Your task to perform on an android device: Go to privacy settings Image 0: 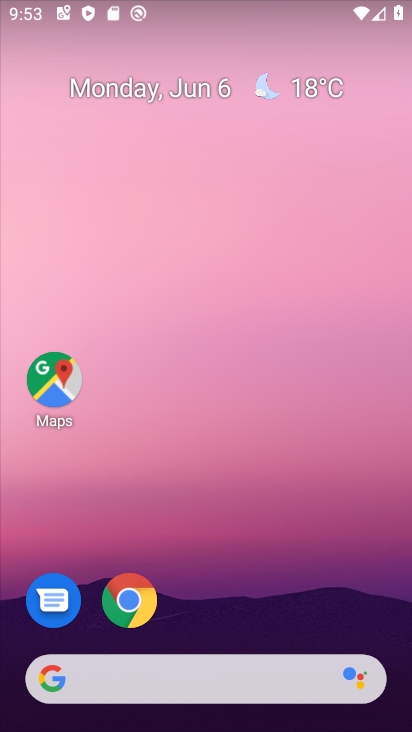
Step 0: drag from (263, 600) to (260, 22)
Your task to perform on an android device: Go to privacy settings Image 1: 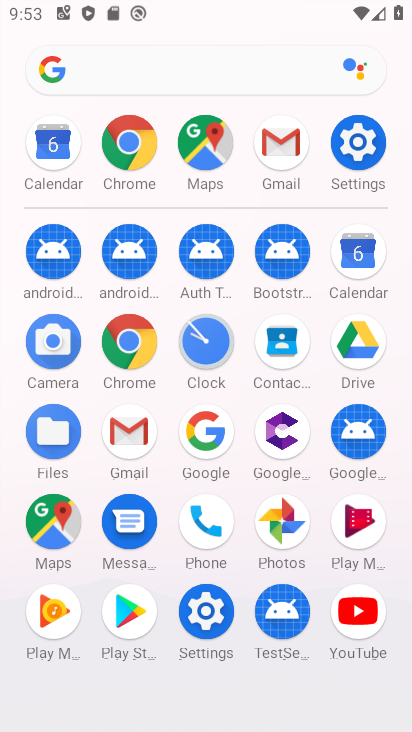
Step 1: click (208, 608)
Your task to perform on an android device: Go to privacy settings Image 2: 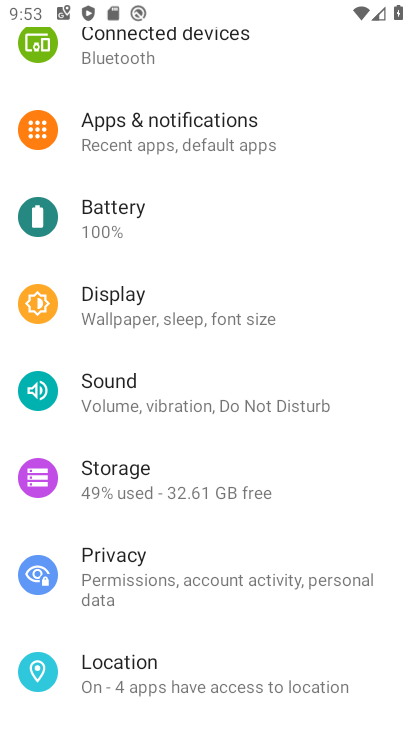
Step 2: drag from (266, 665) to (269, 211)
Your task to perform on an android device: Go to privacy settings Image 3: 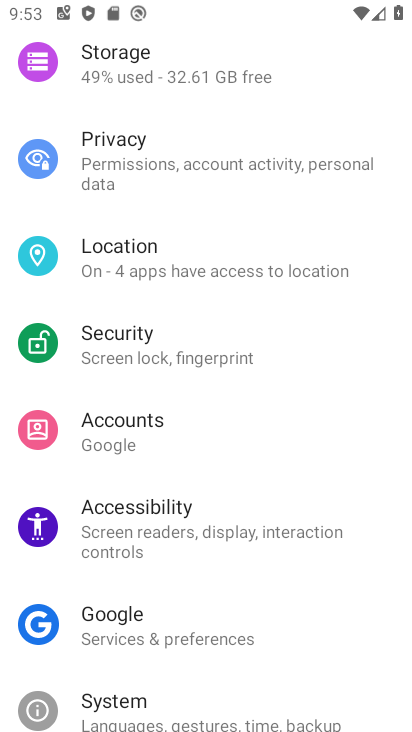
Step 3: click (190, 163)
Your task to perform on an android device: Go to privacy settings Image 4: 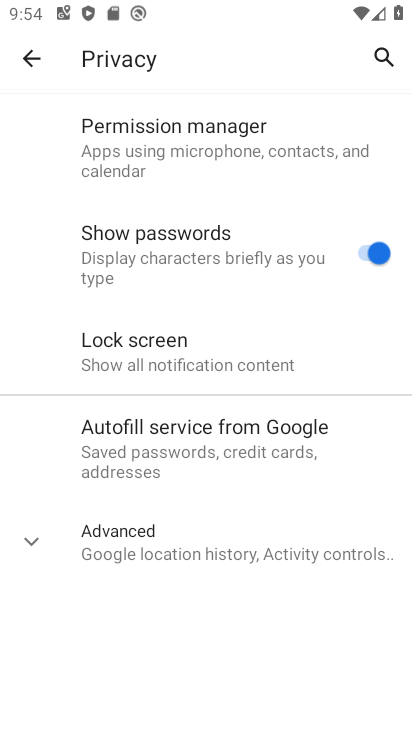
Step 4: click (18, 526)
Your task to perform on an android device: Go to privacy settings Image 5: 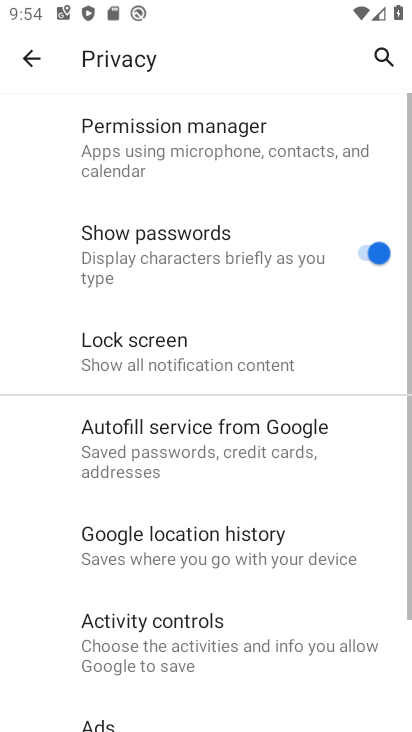
Step 5: task complete